Your task to perform on an android device: What's on my calendar today? Image 0: 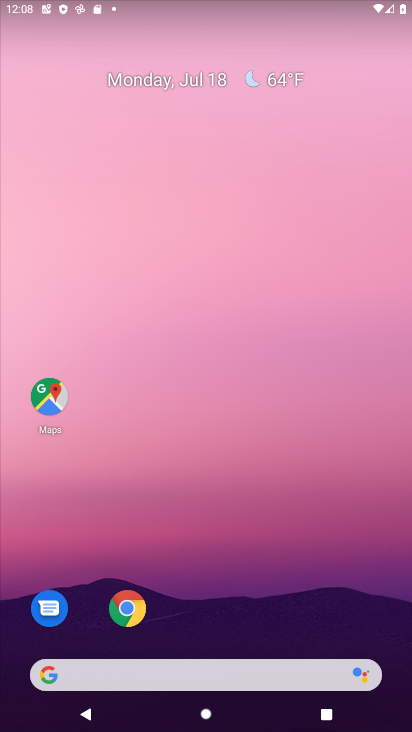
Step 0: drag from (312, 638) to (238, 38)
Your task to perform on an android device: What's on my calendar today? Image 1: 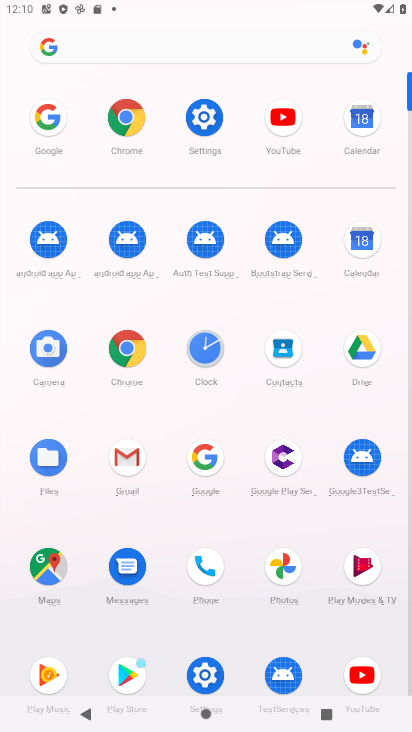
Step 1: click (356, 267)
Your task to perform on an android device: What's on my calendar today? Image 2: 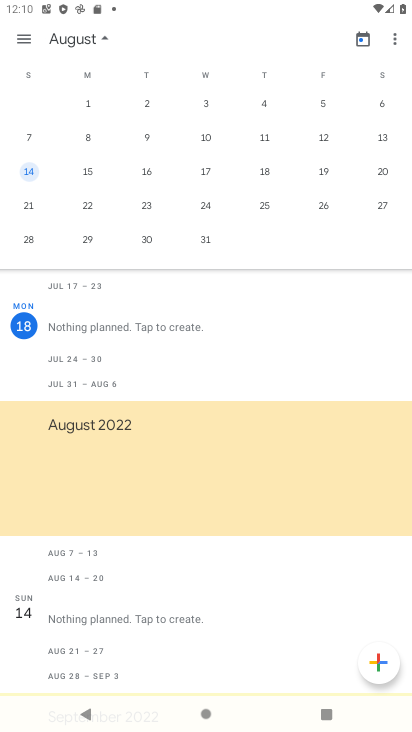
Step 2: task complete